Your task to perform on an android device: set default search engine in the chrome app Image 0: 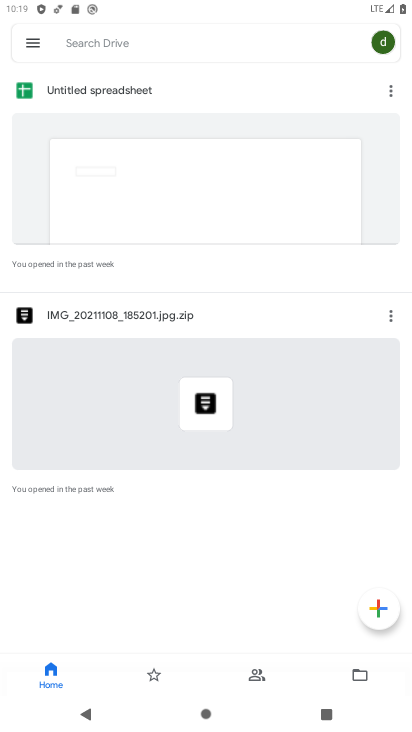
Step 0: press home button
Your task to perform on an android device: set default search engine in the chrome app Image 1: 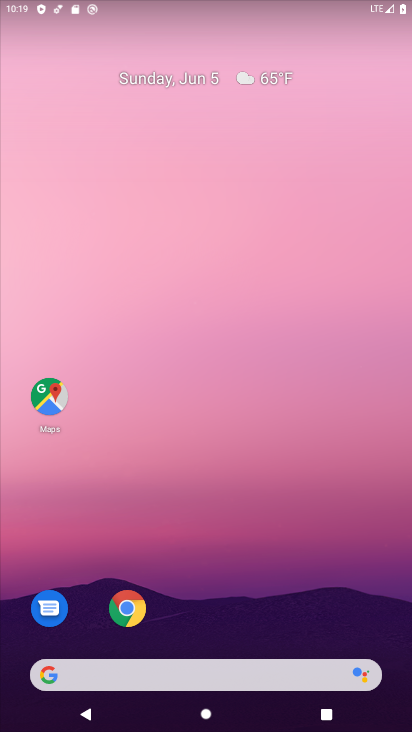
Step 1: click (121, 614)
Your task to perform on an android device: set default search engine in the chrome app Image 2: 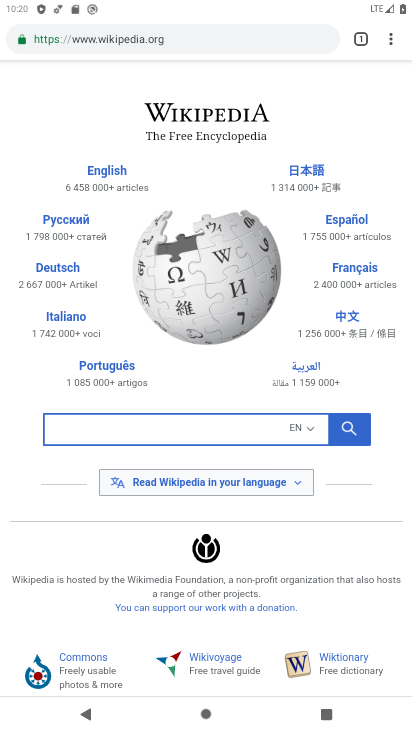
Step 2: drag from (391, 32) to (263, 514)
Your task to perform on an android device: set default search engine in the chrome app Image 3: 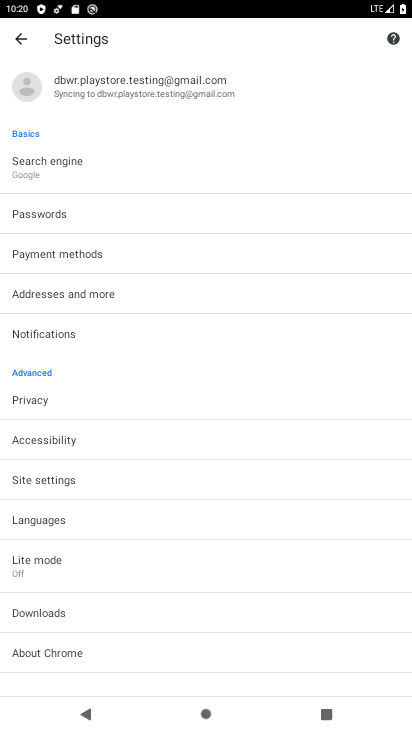
Step 3: click (42, 168)
Your task to perform on an android device: set default search engine in the chrome app Image 4: 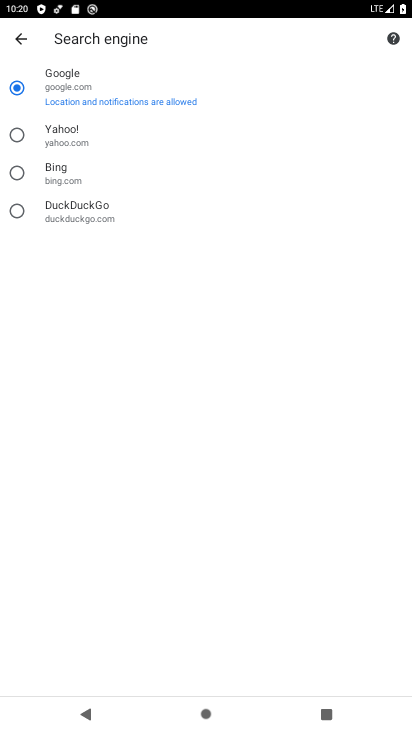
Step 4: click (50, 145)
Your task to perform on an android device: set default search engine in the chrome app Image 5: 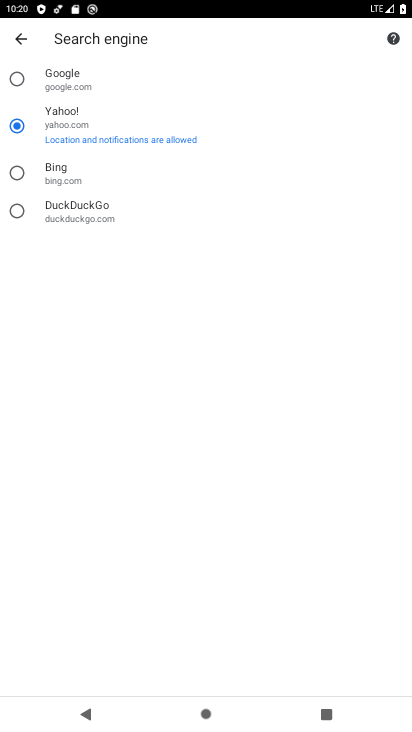
Step 5: task complete